Your task to perform on an android device: toggle data saver in the chrome app Image 0: 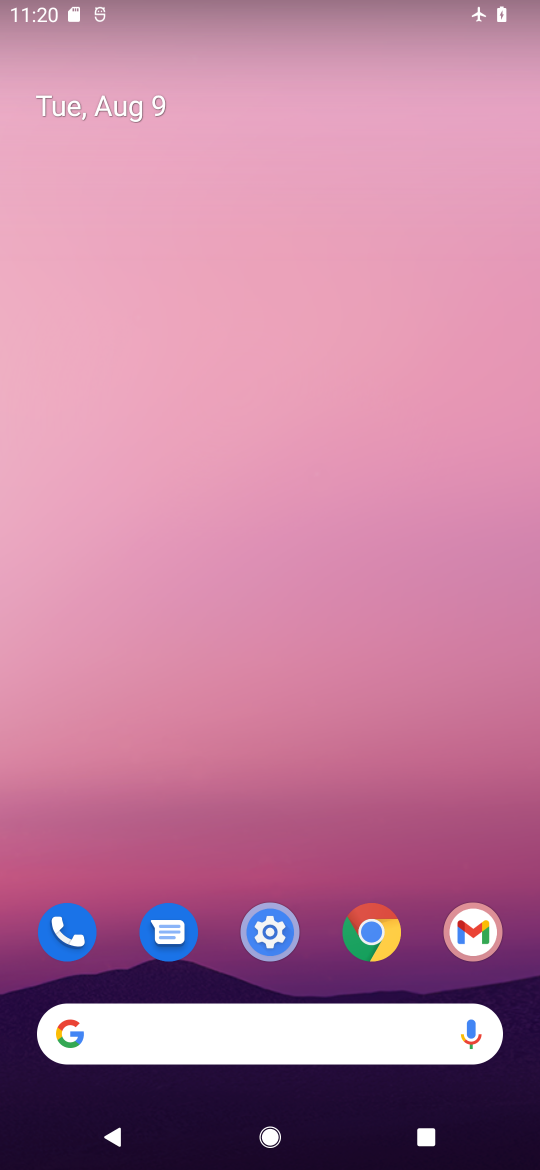
Step 0: click (345, 933)
Your task to perform on an android device: toggle data saver in the chrome app Image 1: 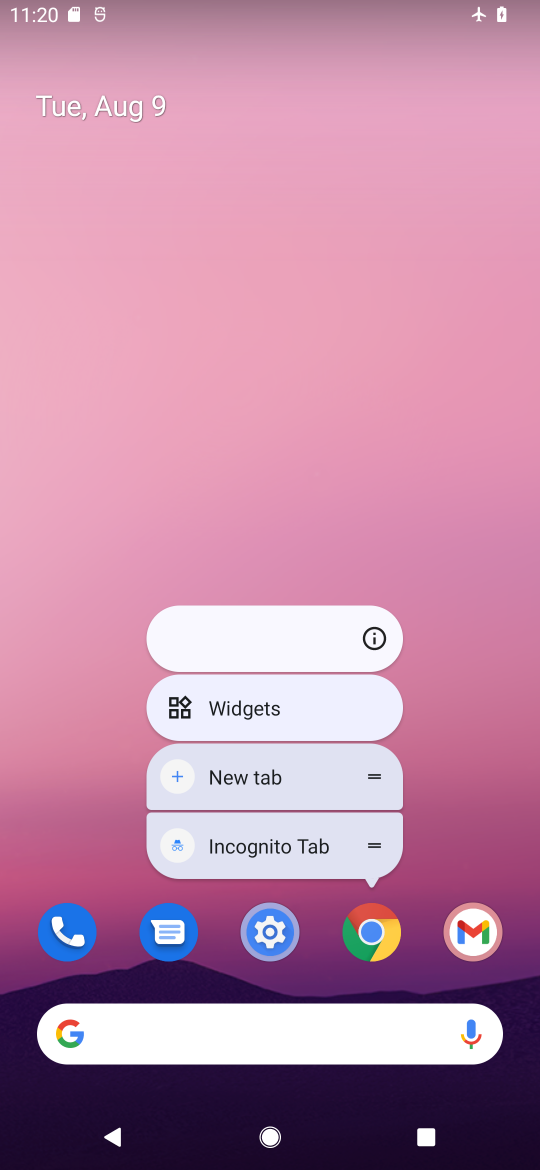
Step 1: click (382, 922)
Your task to perform on an android device: toggle data saver in the chrome app Image 2: 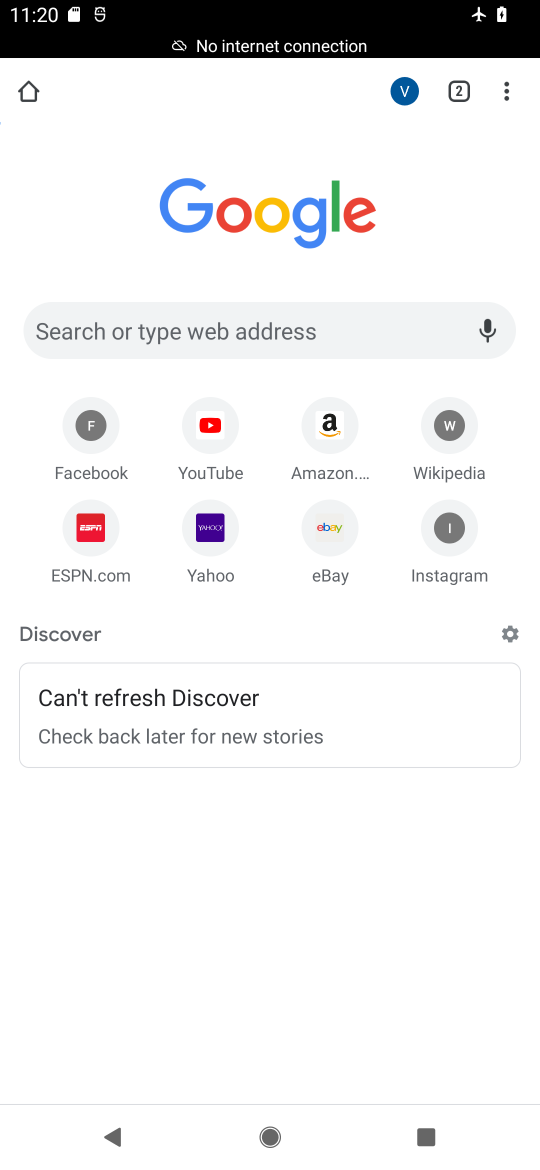
Step 2: click (500, 80)
Your task to perform on an android device: toggle data saver in the chrome app Image 3: 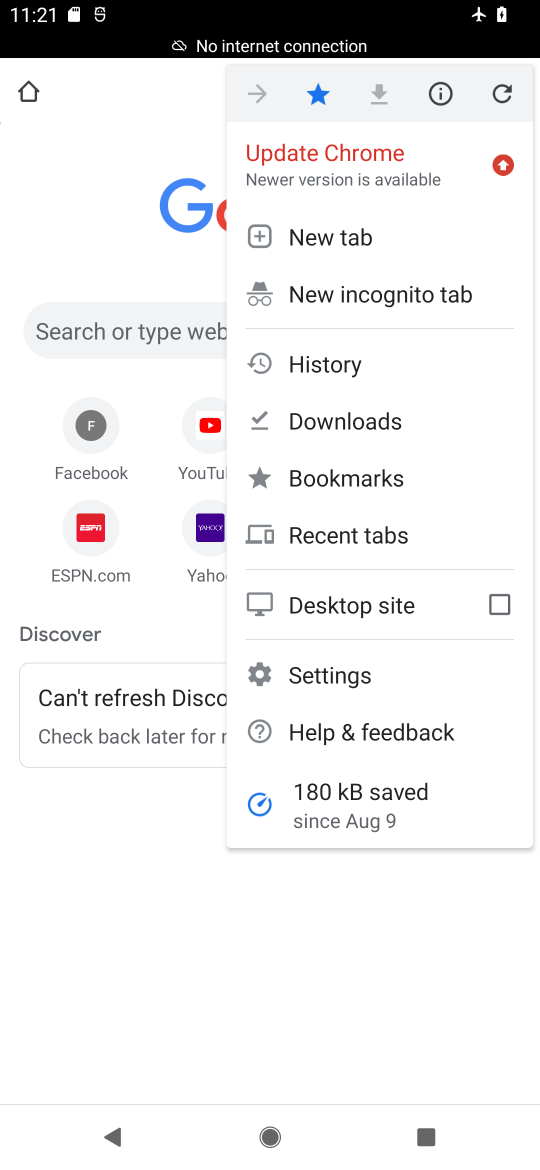
Step 3: click (327, 674)
Your task to perform on an android device: toggle data saver in the chrome app Image 4: 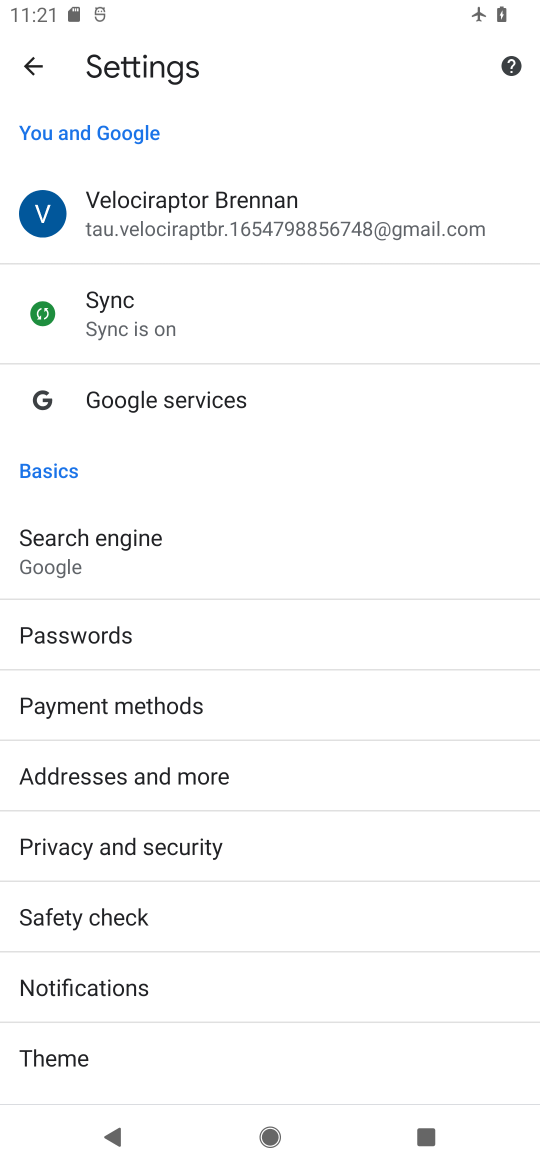
Step 4: drag from (159, 873) to (221, 326)
Your task to perform on an android device: toggle data saver in the chrome app Image 5: 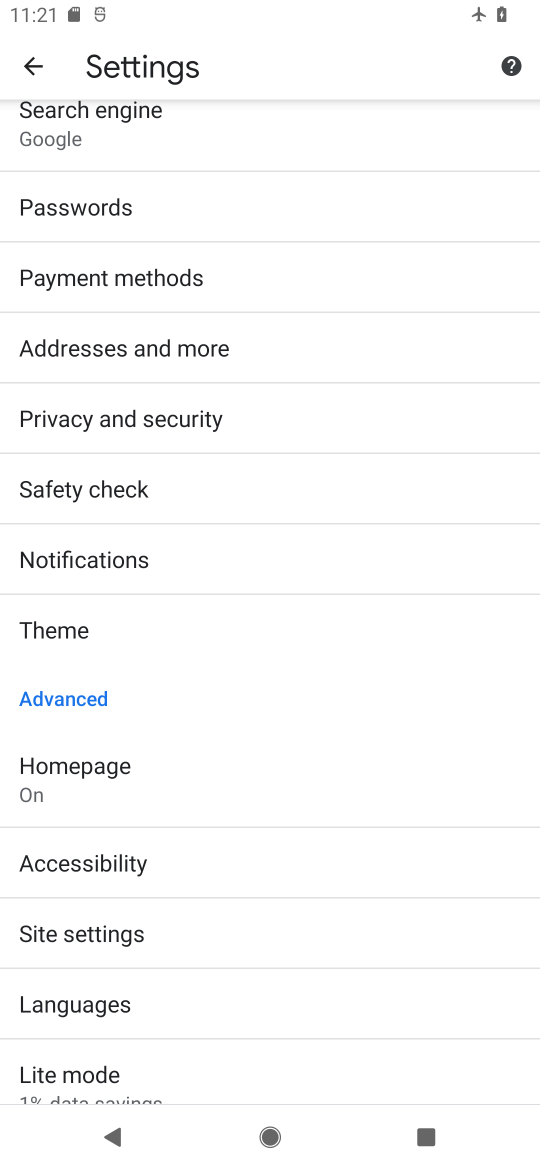
Step 5: drag from (145, 900) to (212, 508)
Your task to perform on an android device: toggle data saver in the chrome app Image 6: 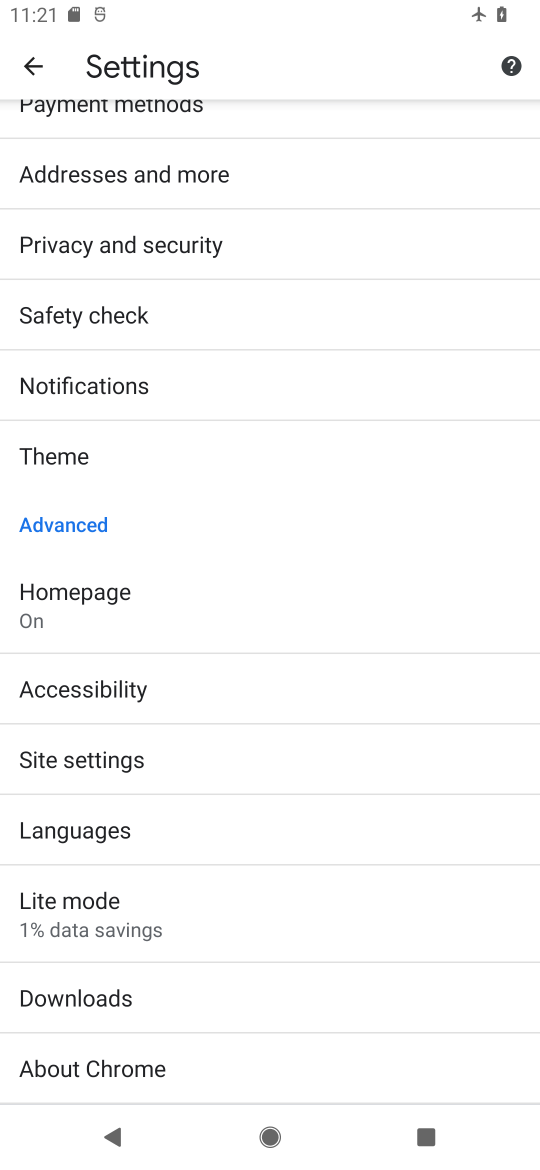
Step 6: click (71, 919)
Your task to perform on an android device: toggle data saver in the chrome app Image 7: 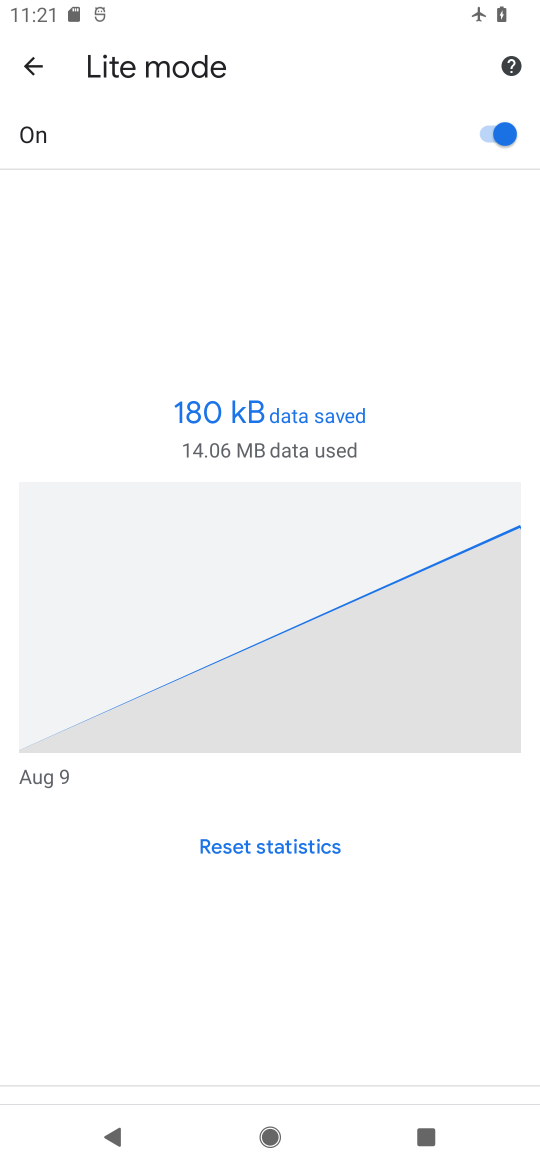
Step 7: click (462, 139)
Your task to perform on an android device: toggle data saver in the chrome app Image 8: 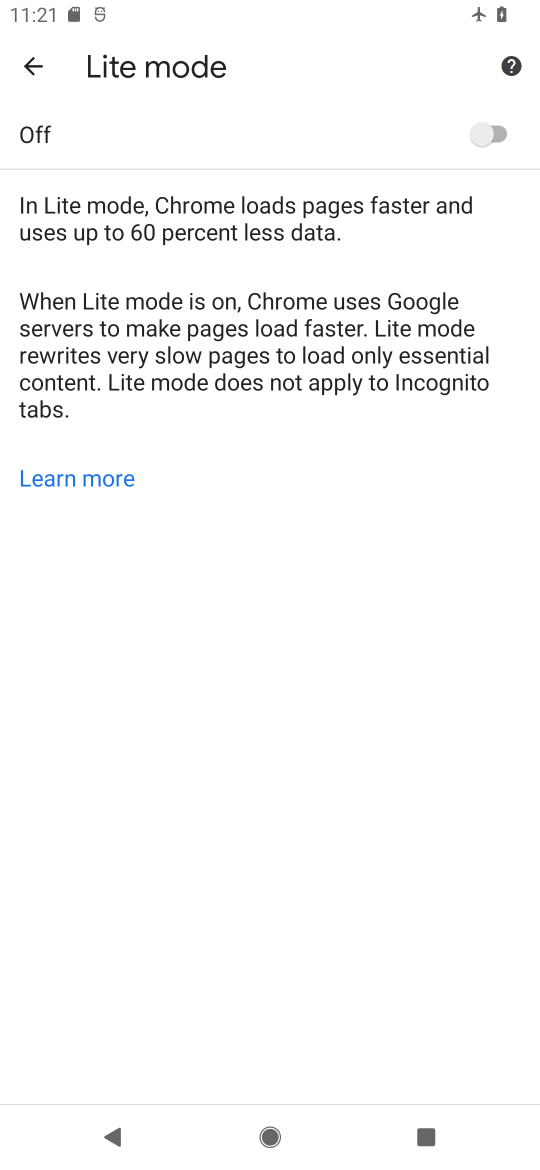
Step 8: task complete